Your task to perform on an android device: turn pop-ups on in chrome Image 0: 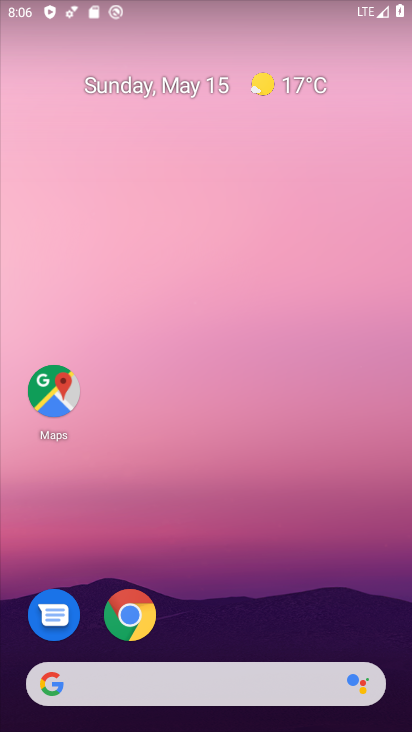
Step 0: click (136, 612)
Your task to perform on an android device: turn pop-ups on in chrome Image 1: 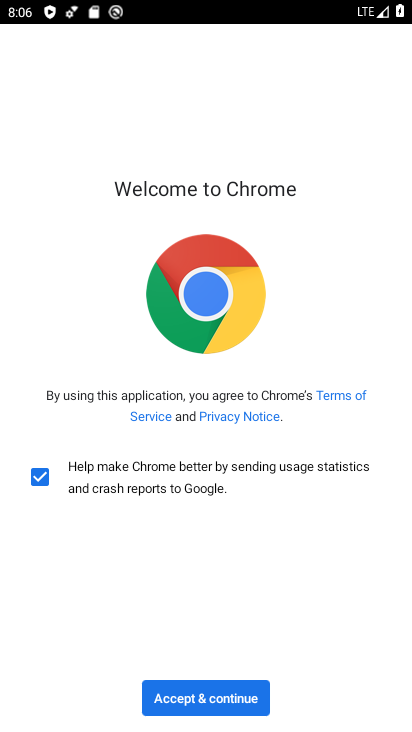
Step 1: click (145, 690)
Your task to perform on an android device: turn pop-ups on in chrome Image 2: 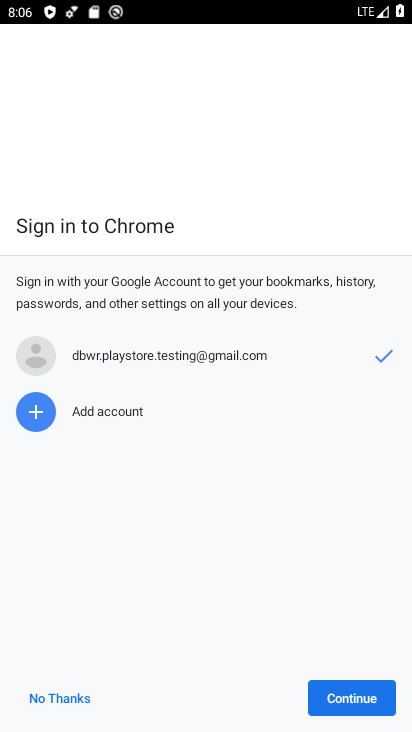
Step 2: click (360, 704)
Your task to perform on an android device: turn pop-ups on in chrome Image 3: 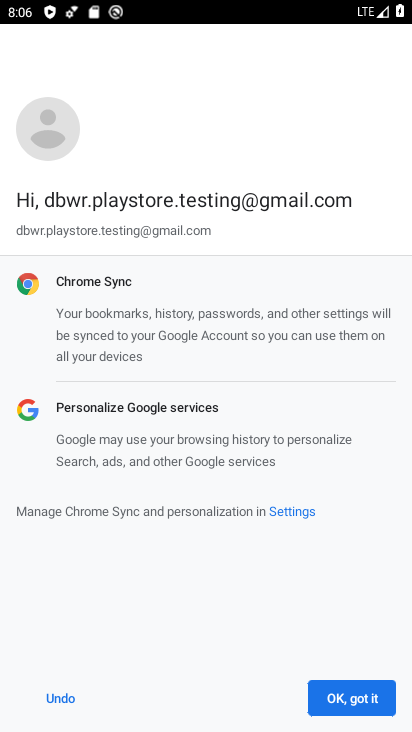
Step 3: click (360, 704)
Your task to perform on an android device: turn pop-ups on in chrome Image 4: 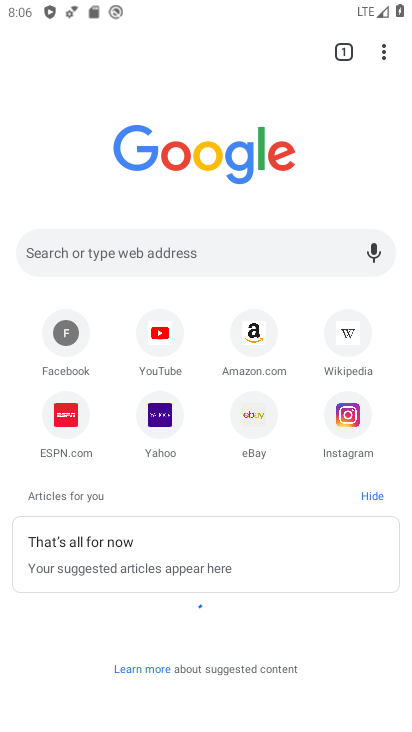
Step 4: click (384, 50)
Your task to perform on an android device: turn pop-ups on in chrome Image 5: 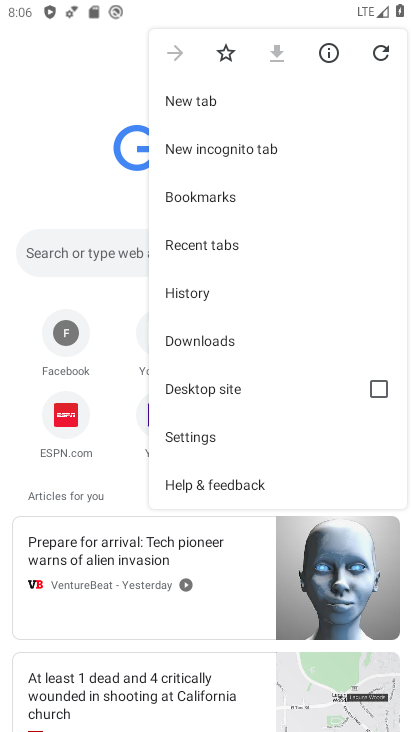
Step 5: click (211, 432)
Your task to perform on an android device: turn pop-ups on in chrome Image 6: 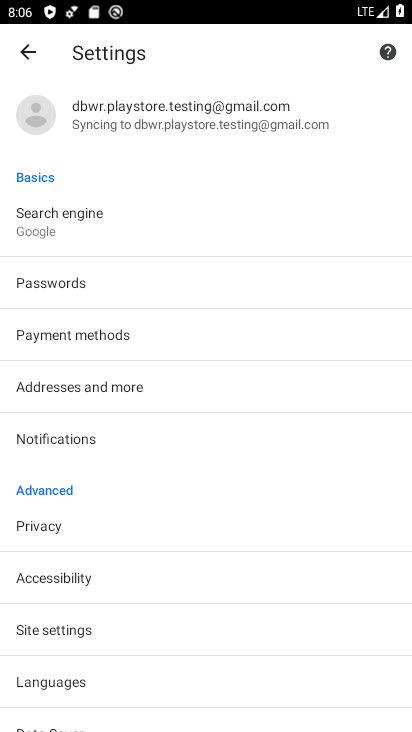
Step 6: drag from (162, 644) to (193, 224)
Your task to perform on an android device: turn pop-ups on in chrome Image 7: 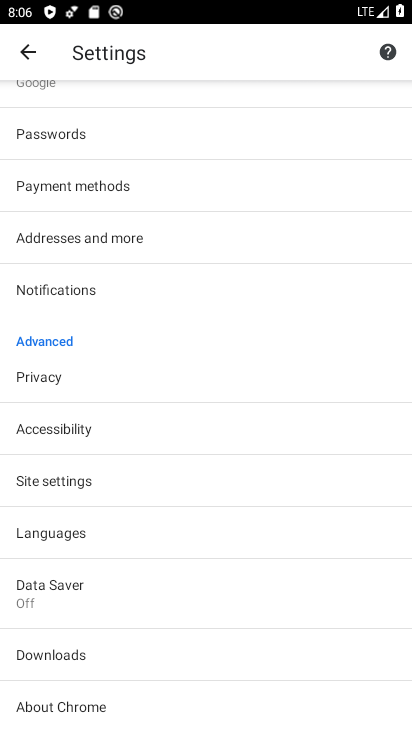
Step 7: click (97, 482)
Your task to perform on an android device: turn pop-ups on in chrome Image 8: 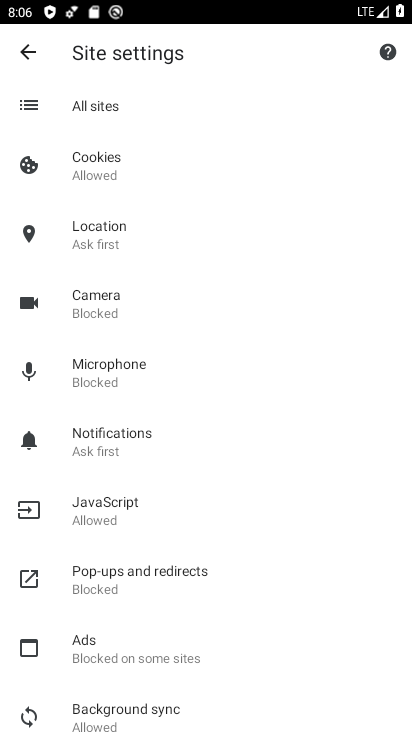
Step 8: click (146, 573)
Your task to perform on an android device: turn pop-ups on in chrome Image 9: 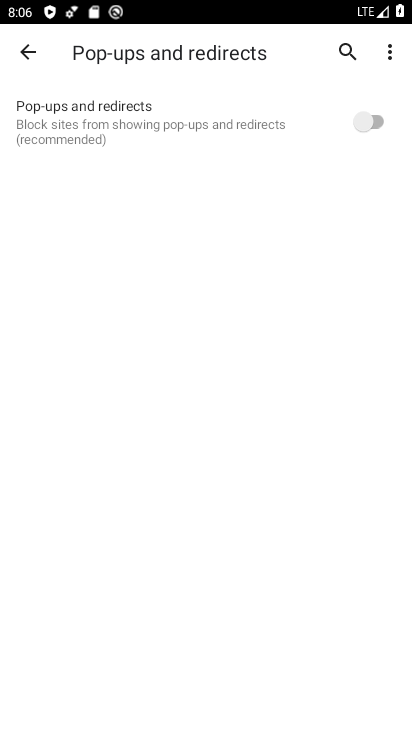
Step 9: click (369, 120)
Your task to perform on an android device: turn pop-ups on in chrome Image 10: 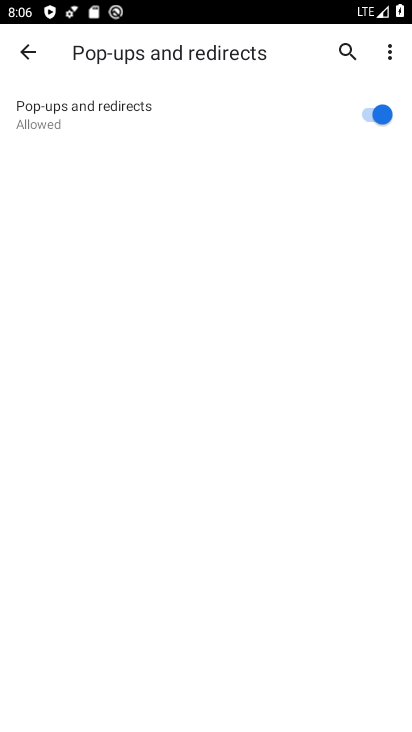
Step 10: task complete